Your task to perform on an android device: Open the map Image 0: 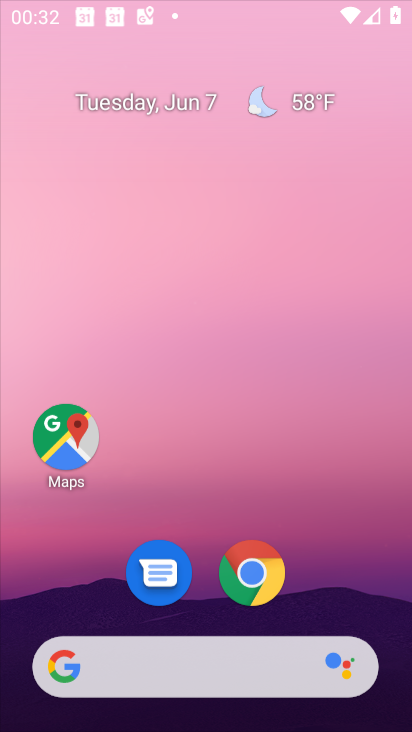
Step 0: press home button
Your task to perform on an android device: Open the map Image 1: 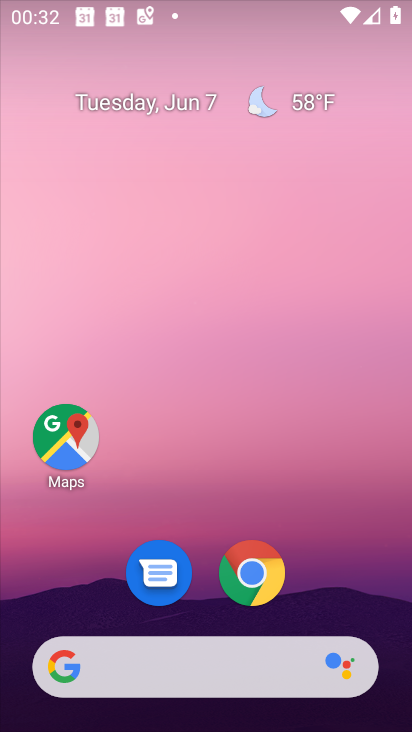
Step 1: press home button
Your task to perform on an android device: Open the map Image 2: 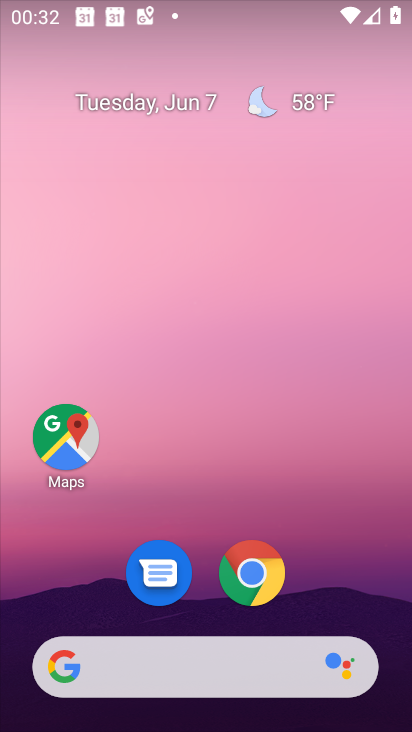
Step 2: drag from (376, 574) to (343, 116)
Your task to perform on an android device: Open the map Image 3: 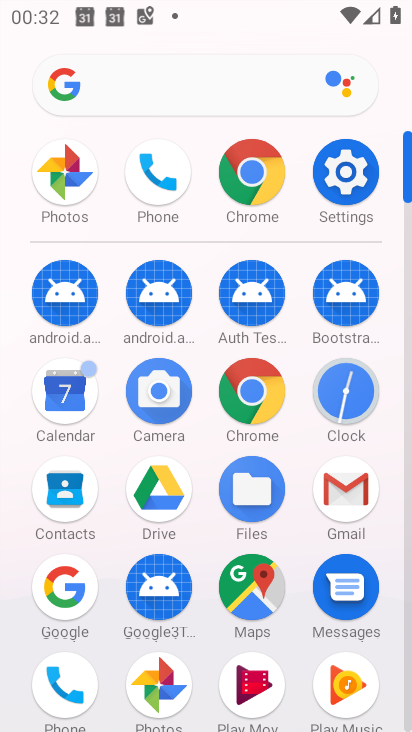
Step 3: click (255, 587)
Your task to perform on an android device: Open the map Image 4: 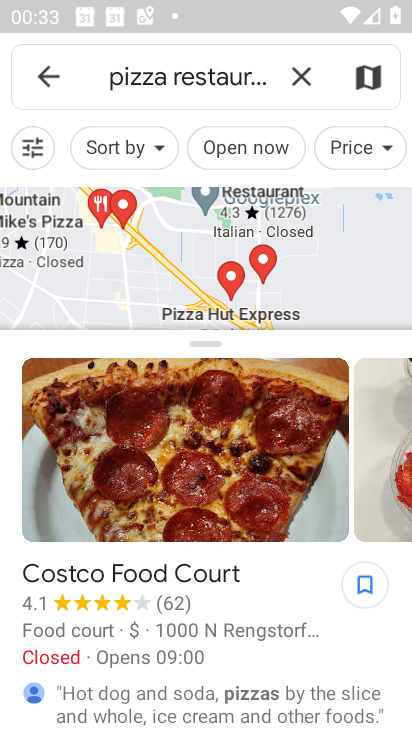
Step 4: task complete